Your task to perform on an android device: Open CNN.com Image 0: 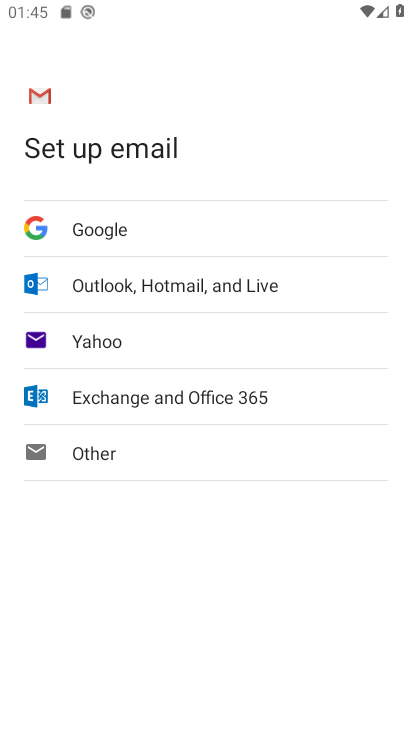
Step 0: press home button
Your task to perform on an android device: Open CNN.com Image 1: 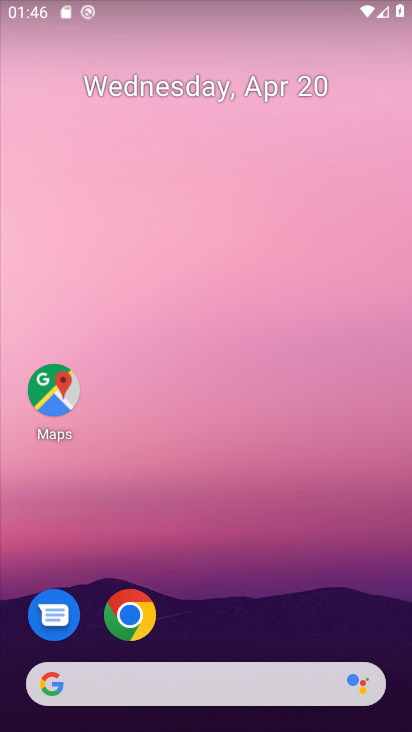
Step 1: click (140, 600)
Your task to perform on an android device: Open CNN.com Image 2: 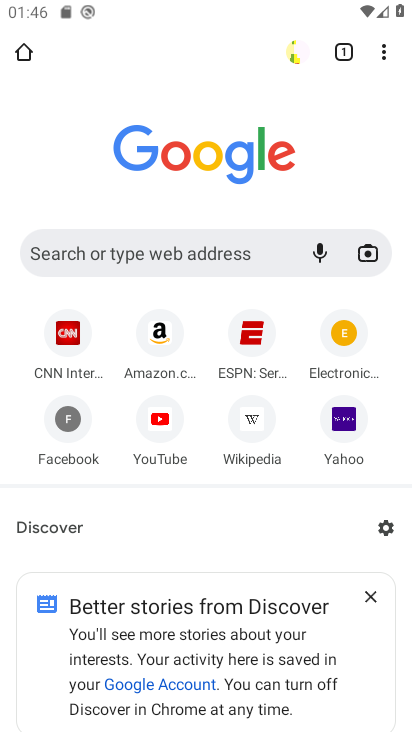
Step 2: click (177, 249)
Your task to perform on an android device: Open CNN.com Image 3: 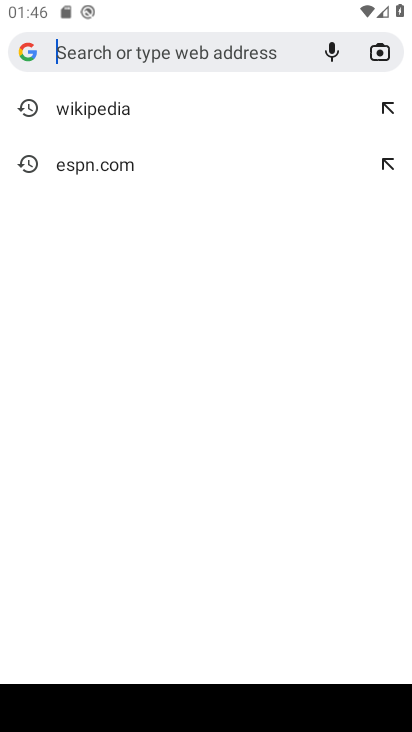
Step 3: type "CNN.com"
Your task to perform on an android device: Open CNN.com Image 4: 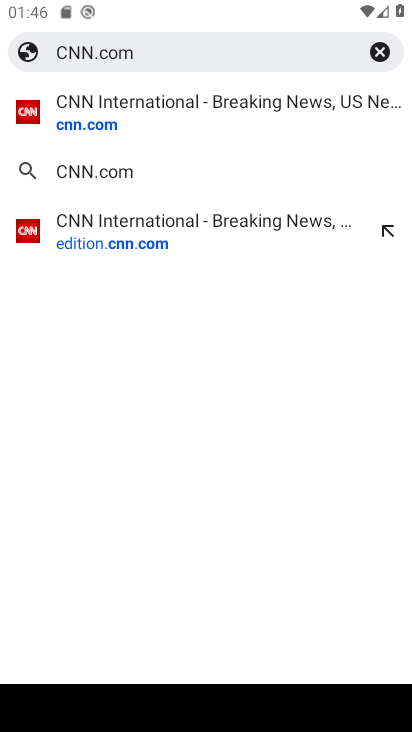
Step 4: click (73, 114)
Your task to perform on an android device: Open CNN.com Image 5: 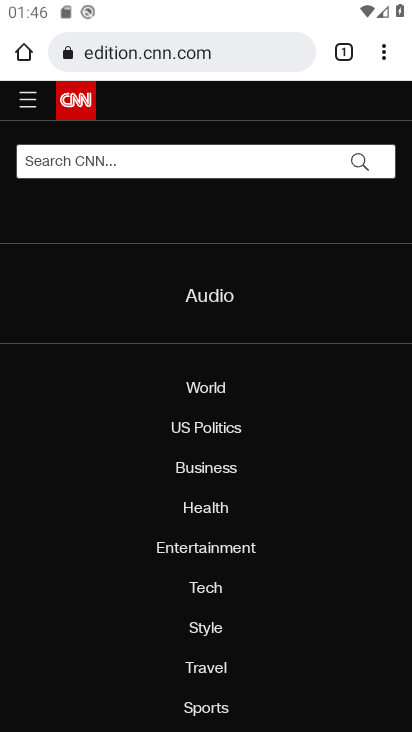
Step 5: task complete